Your task to perform on an android device: What's the weather going to be this weekend? Image 0: 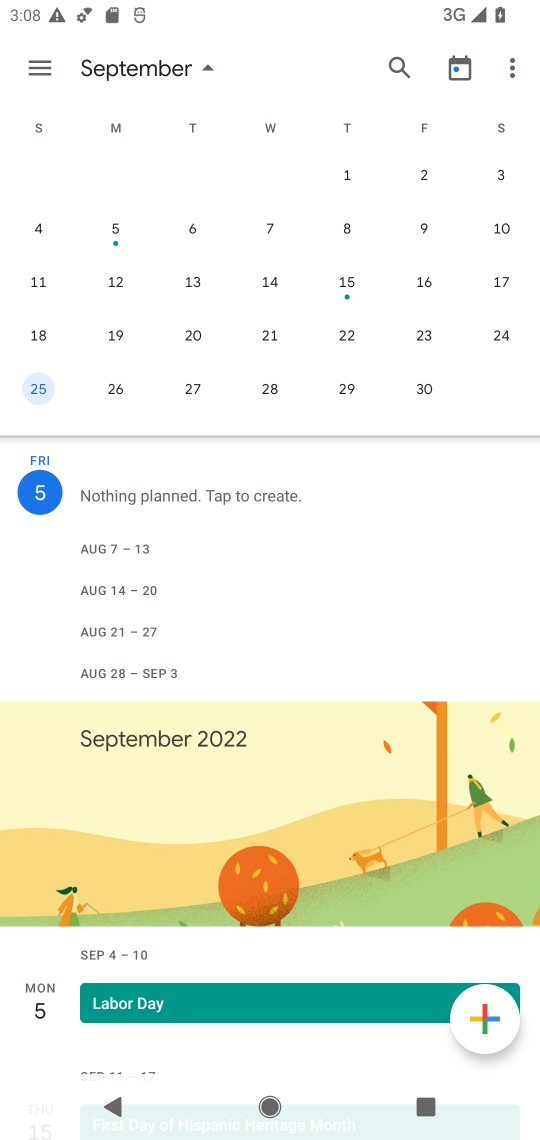
Step 0: press home button
Your task to perform on an android device: What's the weather going to be this weekend? Image 1: 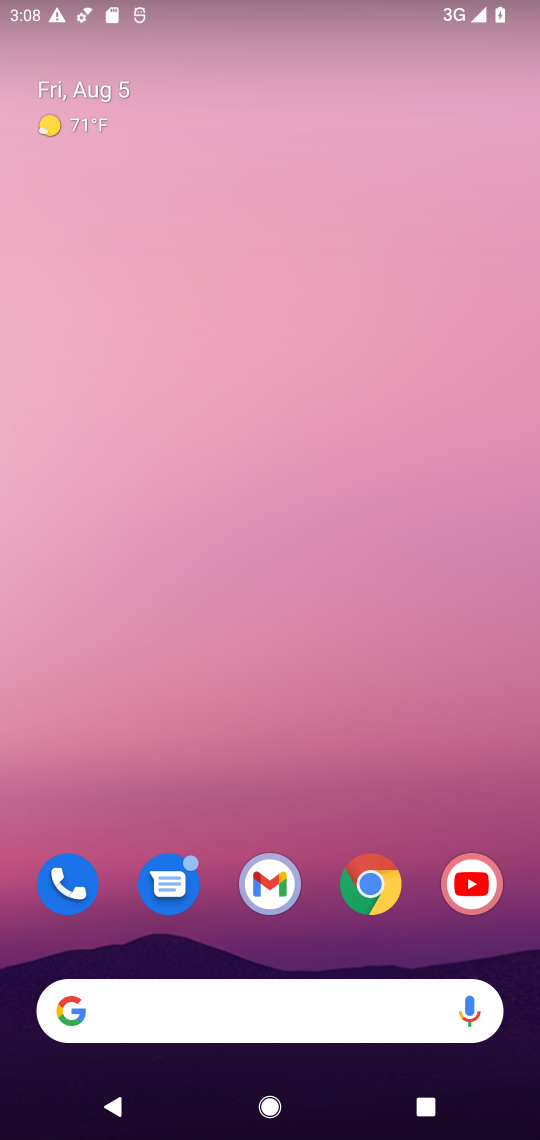
Step 1: drag from (457, 1055) to (300, 41)
Your task to perform on an android device: What's the weather going to be this weekend? Image 2: 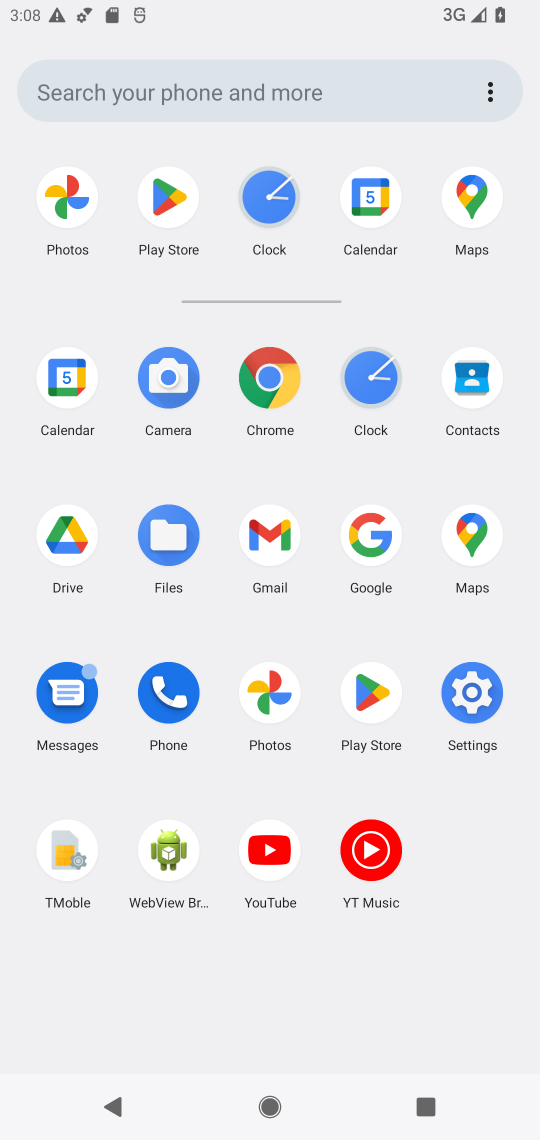
Step 2: click (379, 533)
Your task to perform on an android device: What's the weather going to be this weekend? Image 3: 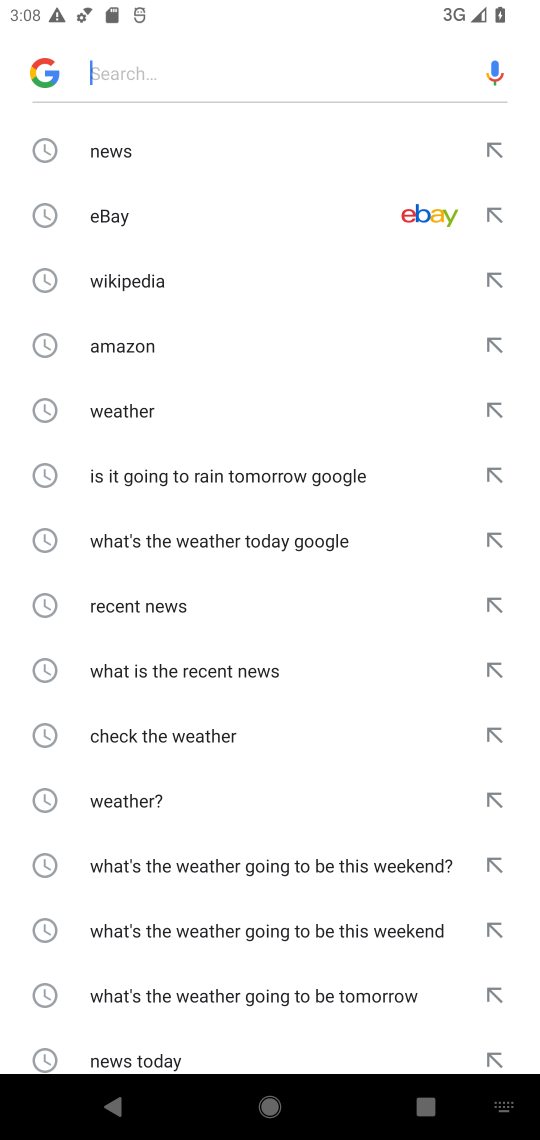
Step 3: click (298, 935)
Your task to perform on an android device: What's the weather going to be this weekend? Image 4: 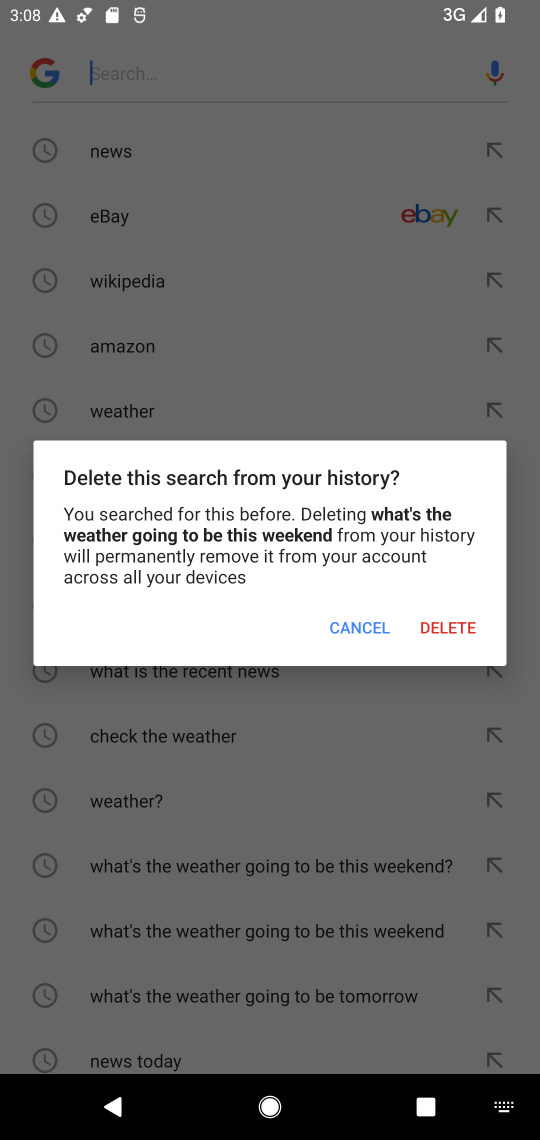
Step 4: click (394, 627)
Your task to perform on an android device: What's the weather going to be this weekend? Image 5: 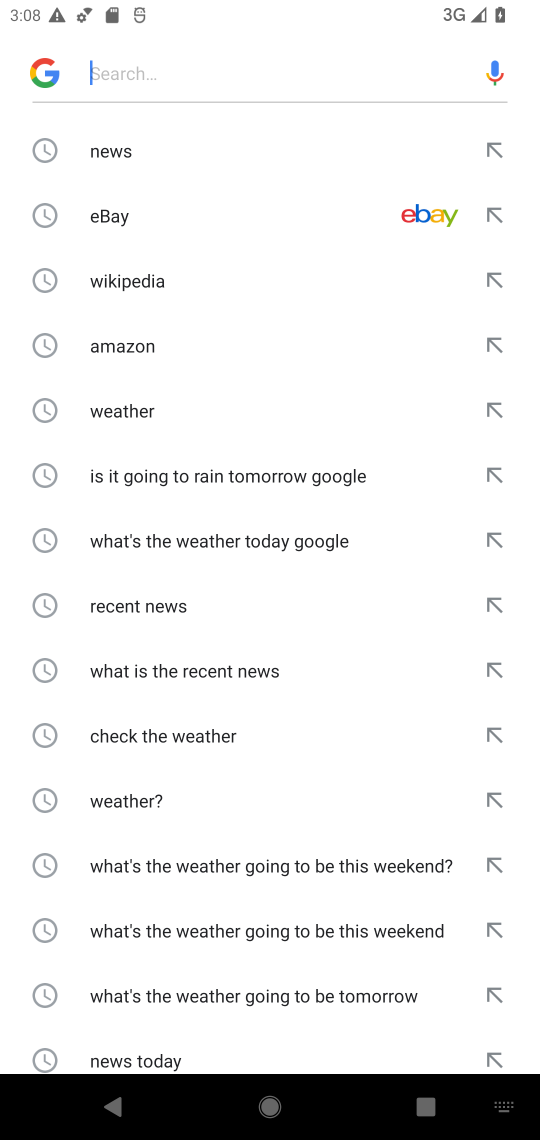
Step 5: click (212, 935)
Your task to perform on an android device: What's the weather going to be this weekend? Image 6: 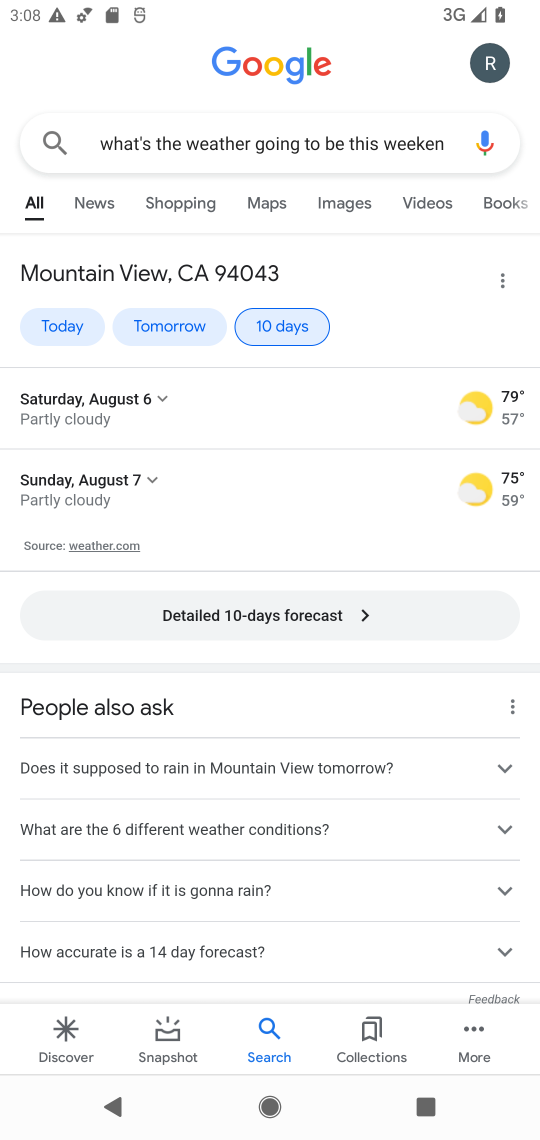
Step 6: task complete